Your task to perform on an android device: What is the news today? Image 0: 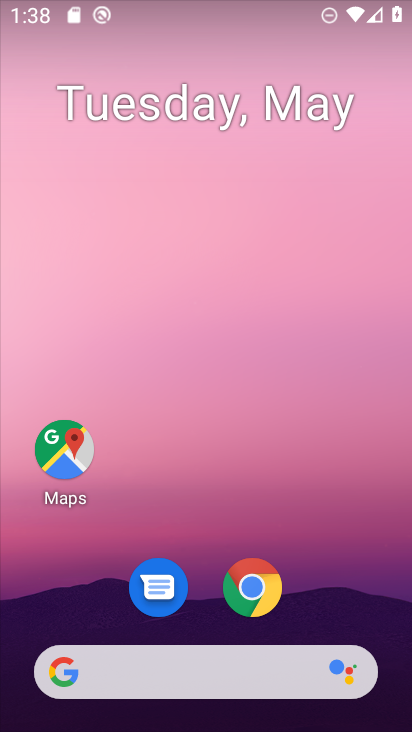
Step 0: click (191, 691)
Your task to perform on an android device: What is the news today? Image 1: 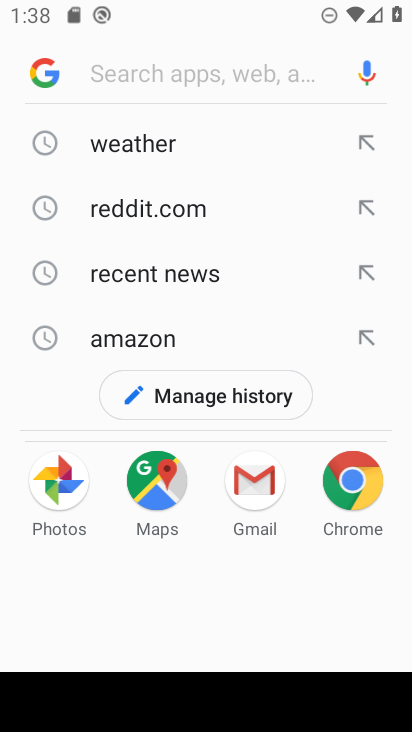
Step 1: click (45, 81)
Your task to perform on an android device: What is the news today? Image 2: 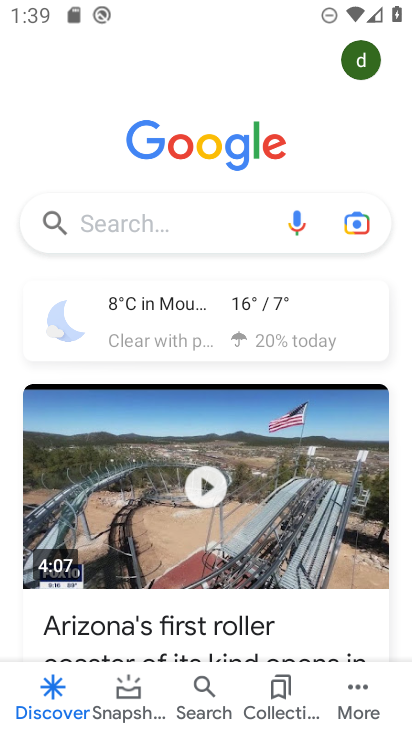
Step 2: task complete